Your task to perform on an android device: What is the recent news? Image 0: 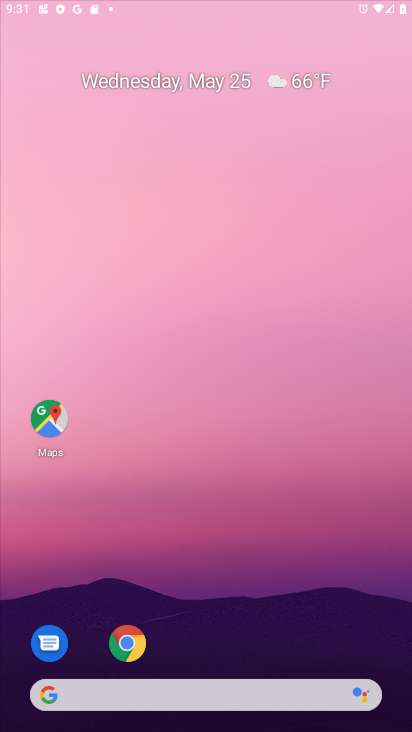
Step 0: press home button
Your task to perform on an android device: What is the recent news? Image 1: 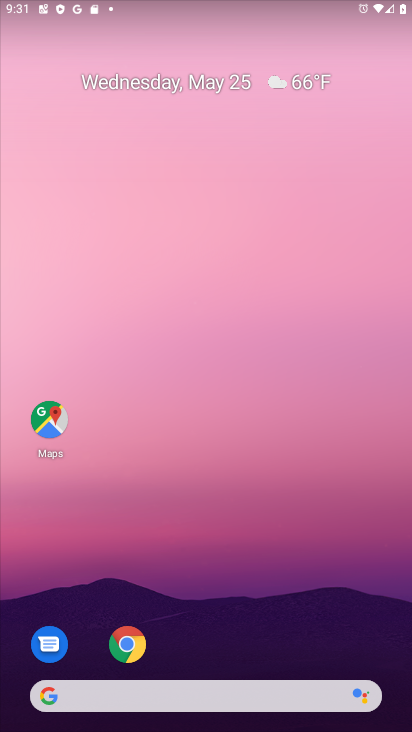
Step 1: task complete